Your task to perform on an android device: turn on bluetooth scan Image 0: 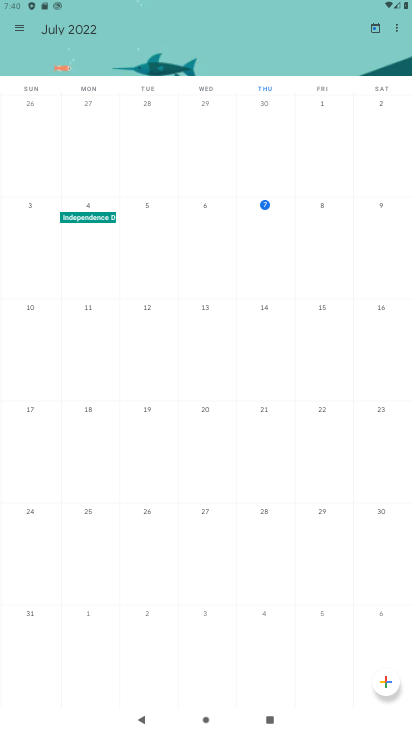
Step 0: press home button
Your task to perform on an android device: turn on bluetooth scan Image 1: 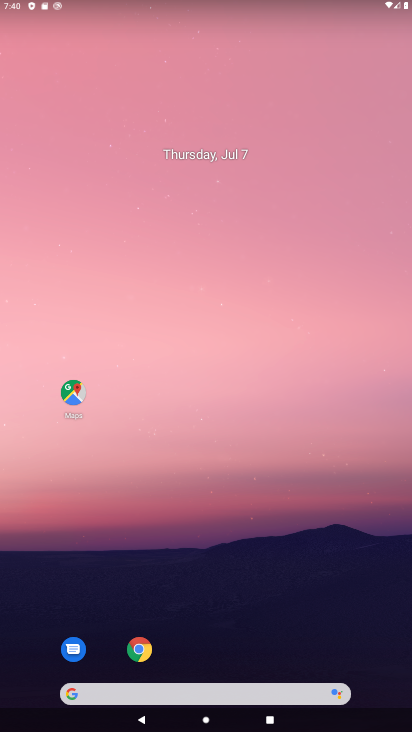
Step 1: drag from (236, 637) to (256, 46)
Your task to perform on an android device: turn on bluetooth scan Image 2: 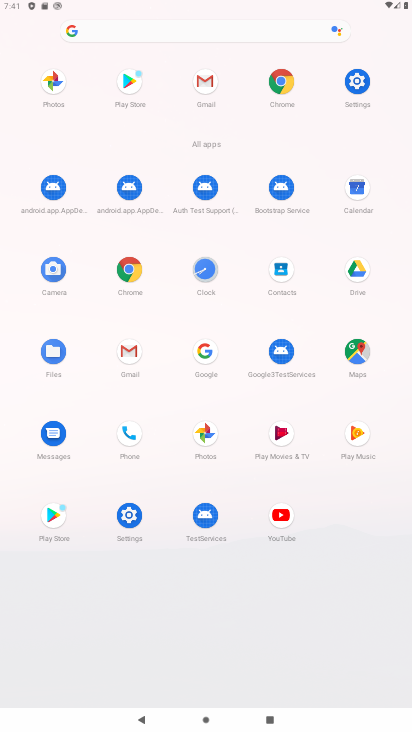
Step 2: click (122, 513)
Your task to perform on an android device: turn on bluetooth scan Image 3: 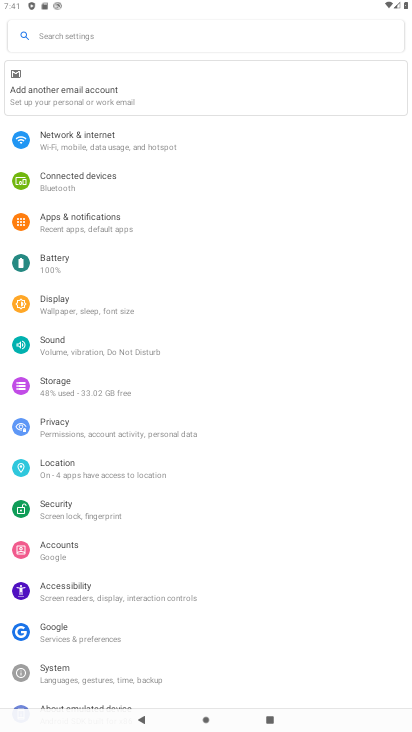
Step 3: click (115, 476)
Your task to perform on an android device: turn on bluetooth scan Image 4: 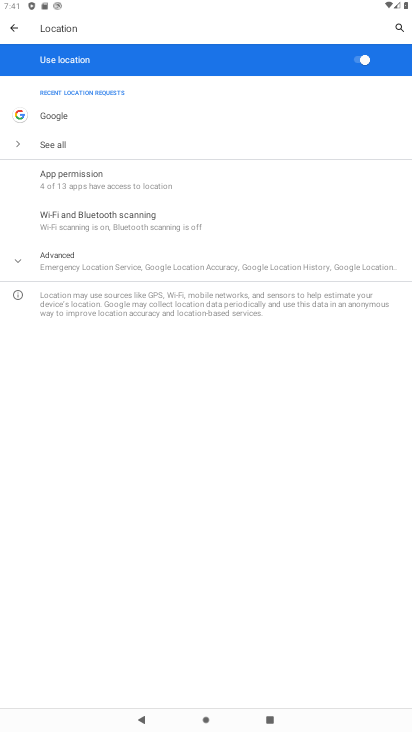
Step 4: click (119, 233)
Your task to perform on an android device: turn on bluetooth scan Image 5: 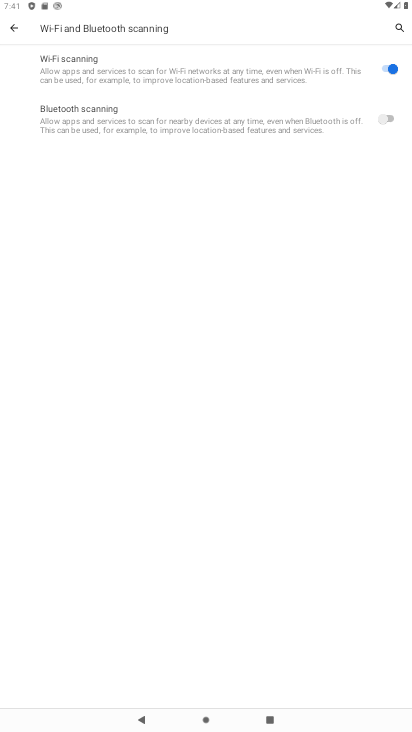
Step 5: click (371, 121)
Your task to perform on an android device: turn on bluetooth scan Image 6: 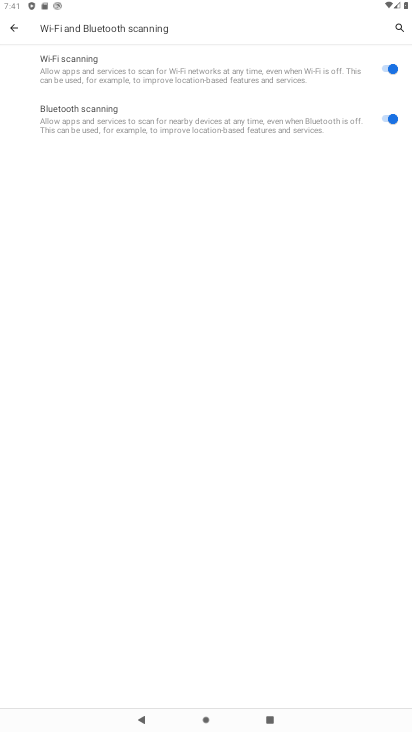
Step 6: task complete